Your task to perform on an android device: turn vacation reply on in the gmail app Image 0: 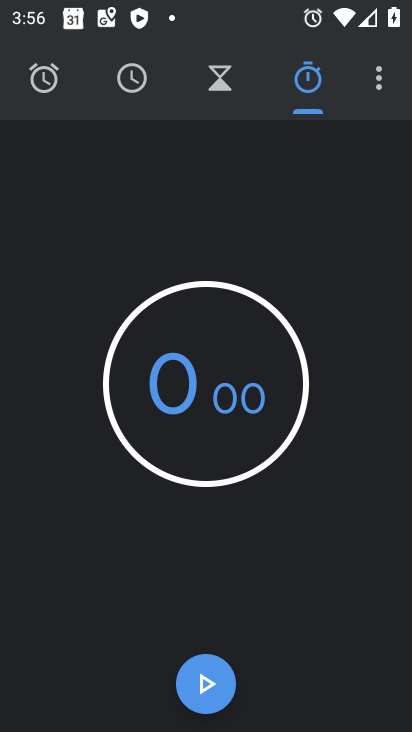
Step 0: press home button
Your task to perform on an android device: turn vacation reply on in the gmail app Image 1: 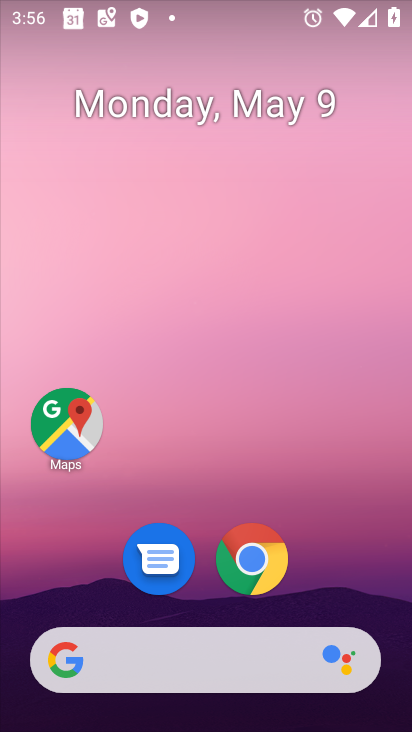
Step 1: drag from (225, 714) to (236, 294)
Your task to perform on an android device: turn vacation reply on in the gmail app Image 2: 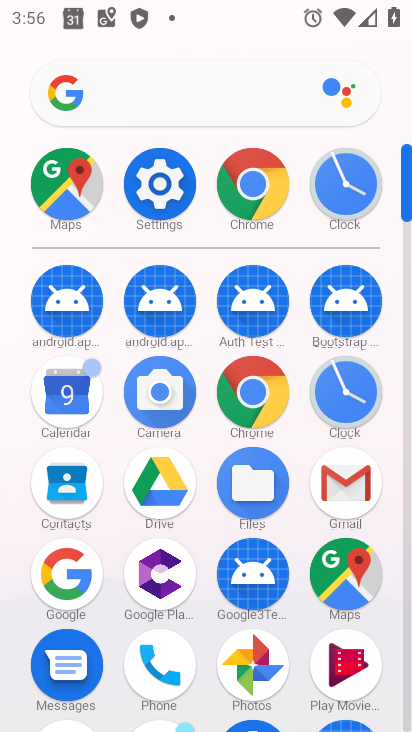
Step 2: click (352, 485)
Your task to perform on an android device: turn vacation reply on in the gmail app Image 3: 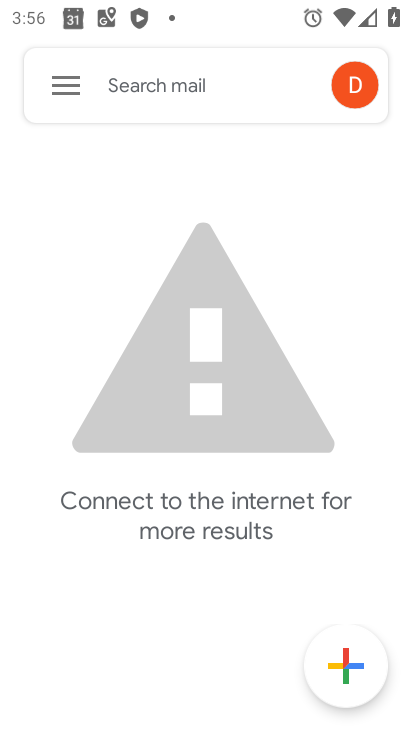
Step 3: click (60, 89)
Your task to perform on an android device: turn vacation reply on in the gmail app Image 4: 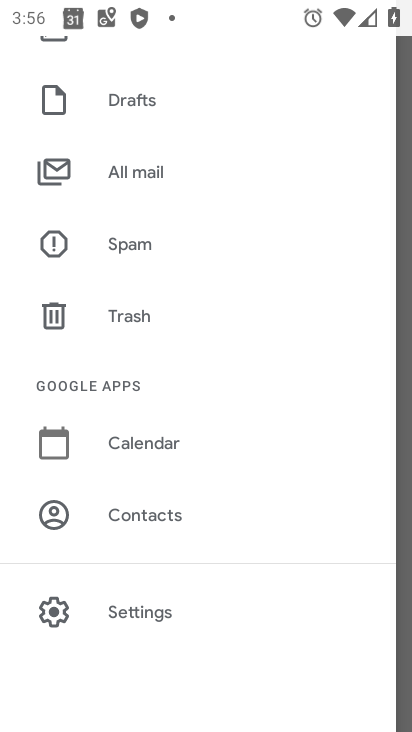
Step 4: drag from (162, 613) to (164, 331)
Your task to perform on an android device: turn vacation reply on in the gmail app Image 5: 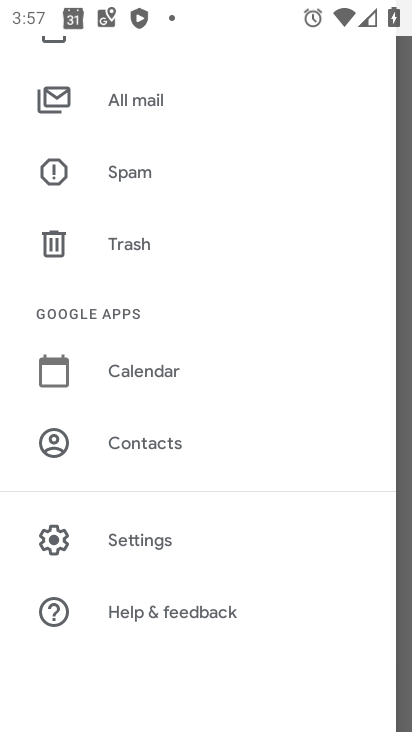
Step 5: click (157, 538)
Your task to perform on an android device: turn vacation reply on in the gmail app Image 6: 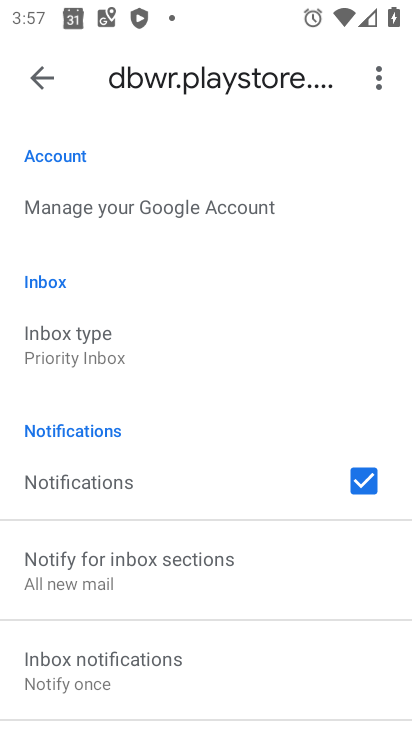
Step 6: drag from (222, 640) to (231, 454)
Your task to perform on an android device: turn vacation reply on in the gmail app Image 7: 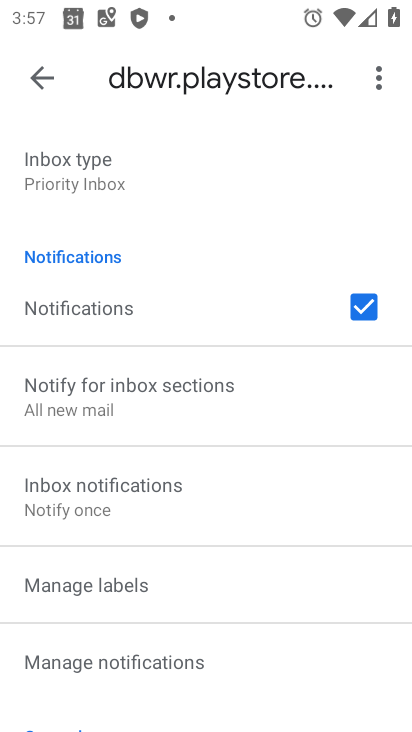
Step 7: drag from (185, 631) to (215, 329)
Your task to perform on an android device: turn vacation reply on in the gmail app Image 8: 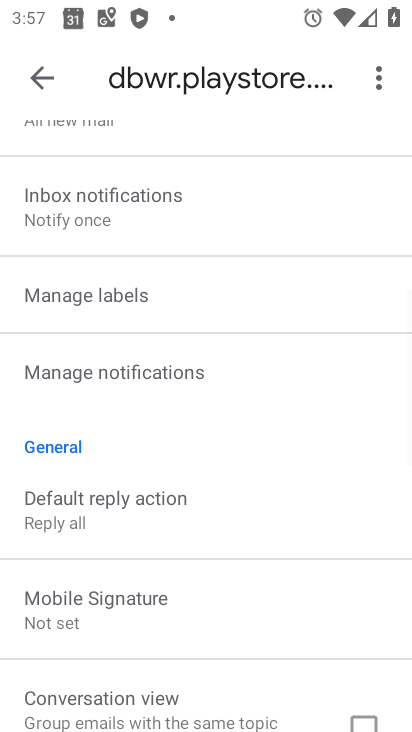
Step 8: drag from (162, 682) to (160, 311)
Your task to perform on an android device: turn vacation reply on in the gmail app Image 9: 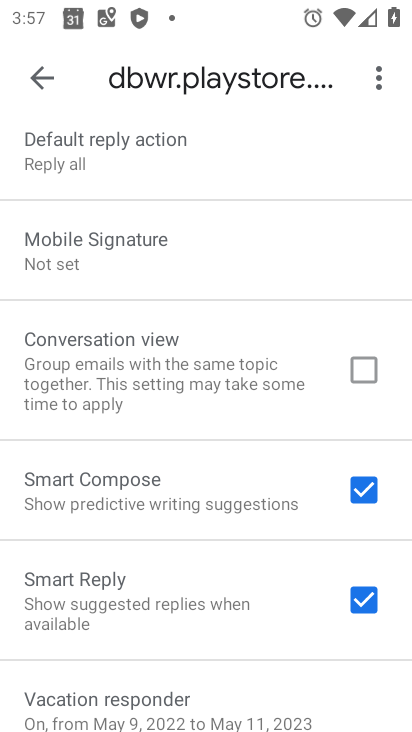
Step 9: drag from (228, 669) to (237, 498)
Your task to perform on an android device: turn vacation reply on in the gmail app Image 10: 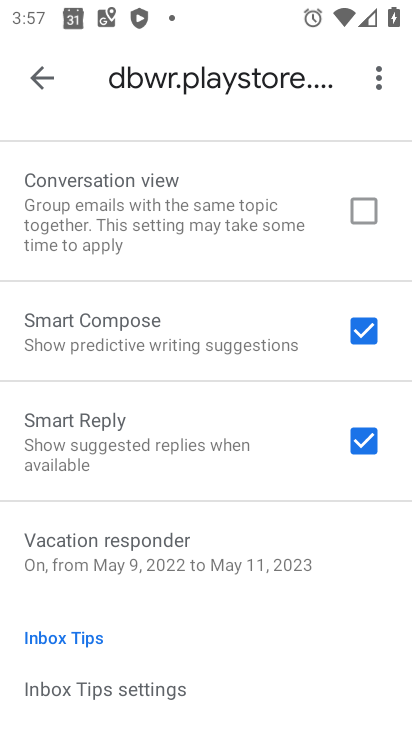
Step 10: drag from (225, 675) to (229, 517)
Your task to perform on an android device: turn vacation reply on in the gmail app Image 11: 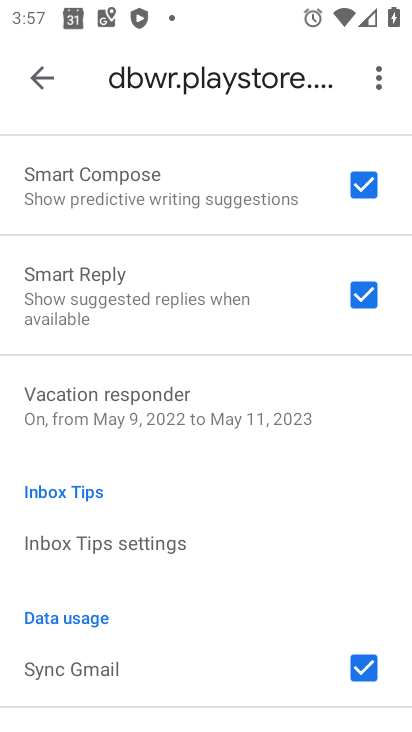
Step 11: click (126, 407)
Your task to perform on an android device: turn vacation reply on in the gmail app Image 12: 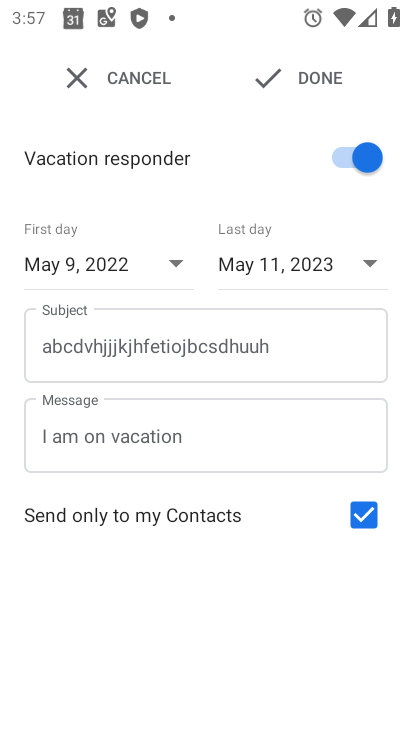
Step 12: task complete